Your task to perform on an android device: Go to battery settings Image 0: 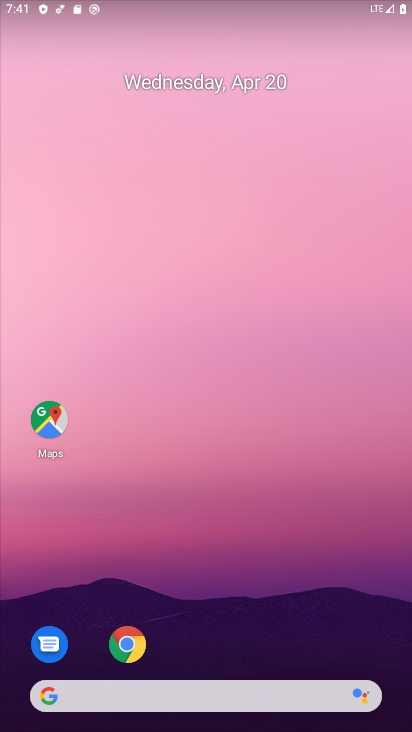
Step 0: drag from (380, 597) to (368, 13)
Your task to perform on an android device: Go to battery settings Image 1: 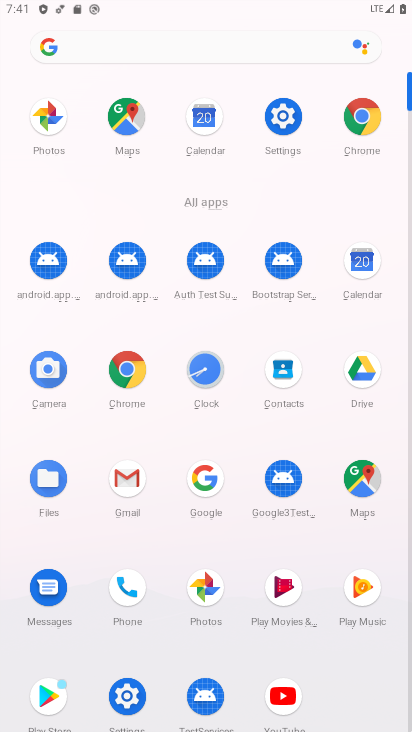
Step 1: click (276, 116)
Your task to perform on an android device: Go to battery settings Image 2: 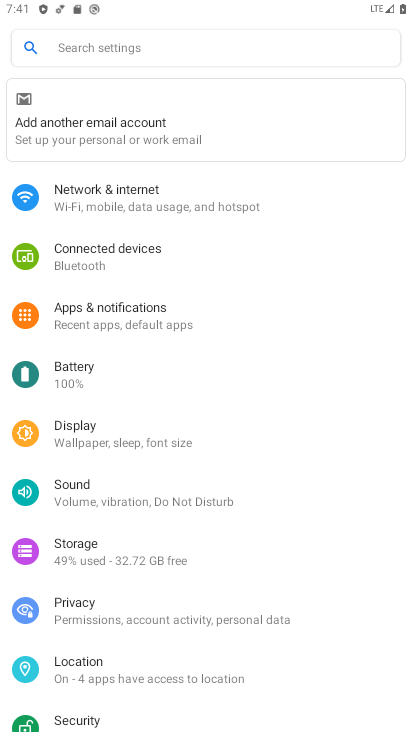
Step 2: click (87, 383)
Your task to perform on an android device: Go to battery settings Image 3: 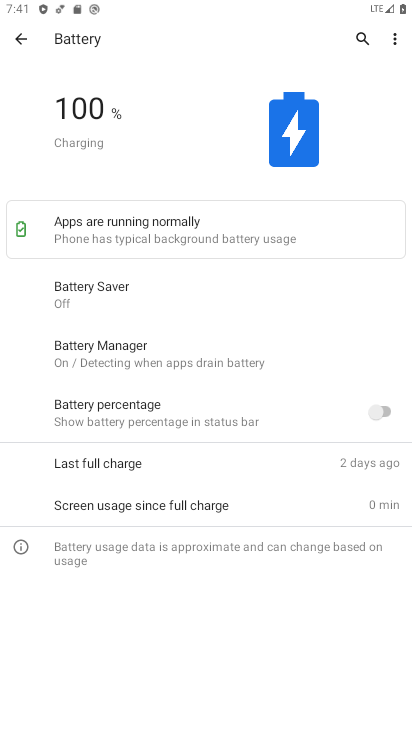
Step 3: task complete